Your task to perform on an android device: Open Google Chrome and click the shortcut for Amazon.com Image 0: 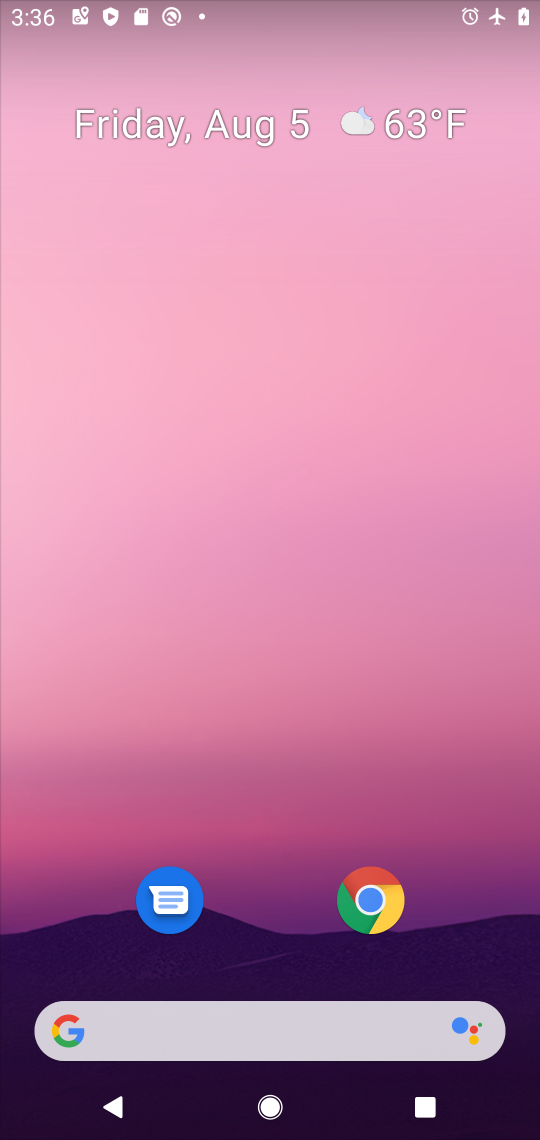
Step 0: click (363, 899)
Your task to perform on an android device: Open Google Chrome and click the shortcut for Amazon.com Image 1: 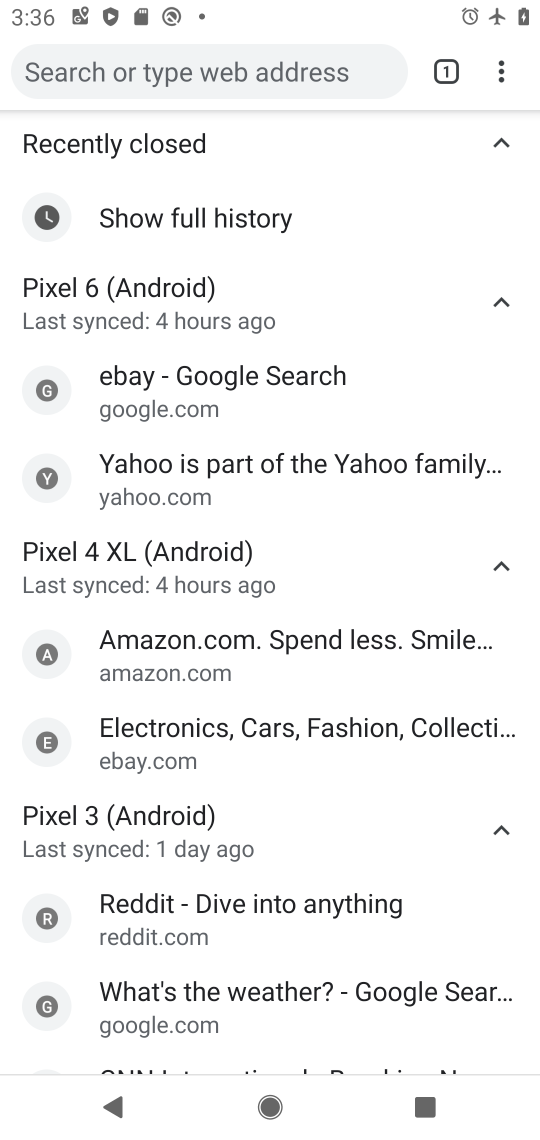
Step 1: click (440, 57)
Your task to perform on an android device: Open Google Chrome and click the shortcut for Amazon.com Image 2: 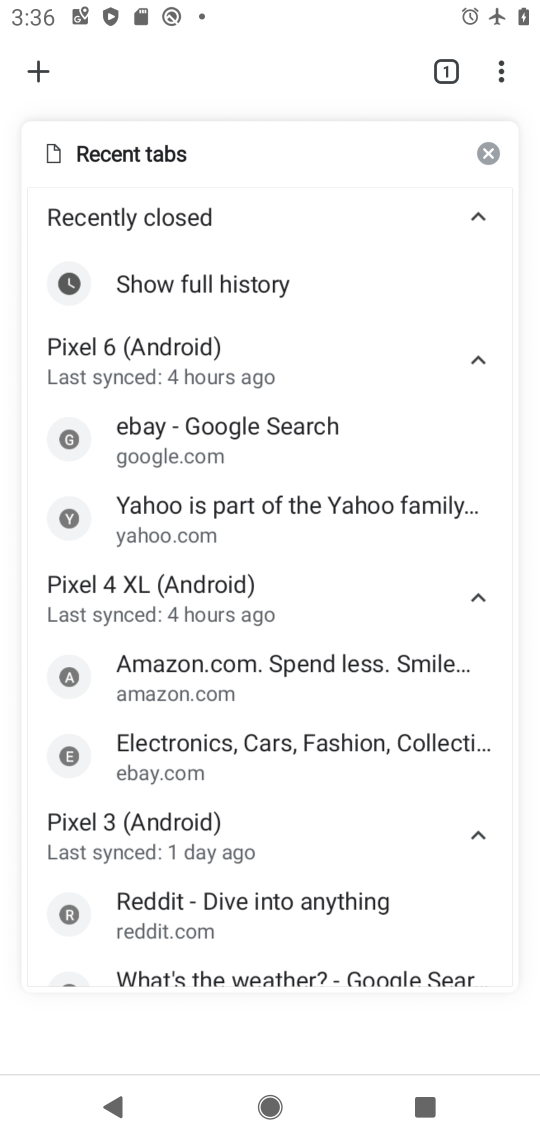
Step 2: click (30, 68)
Your task to perform on an android device: Open Google Chrome and click the shortcut for Amazon.com Image 3: 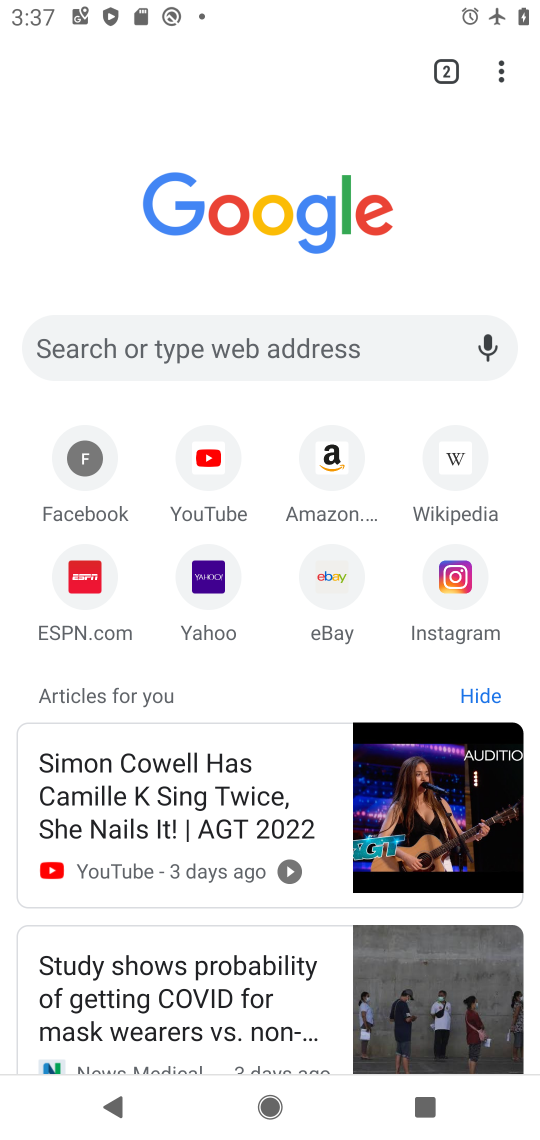
Step 3: click (332, 452)
Your task to perform on an android device: Open Google Chrome and click the shortcut for Amazon.com Image 4: 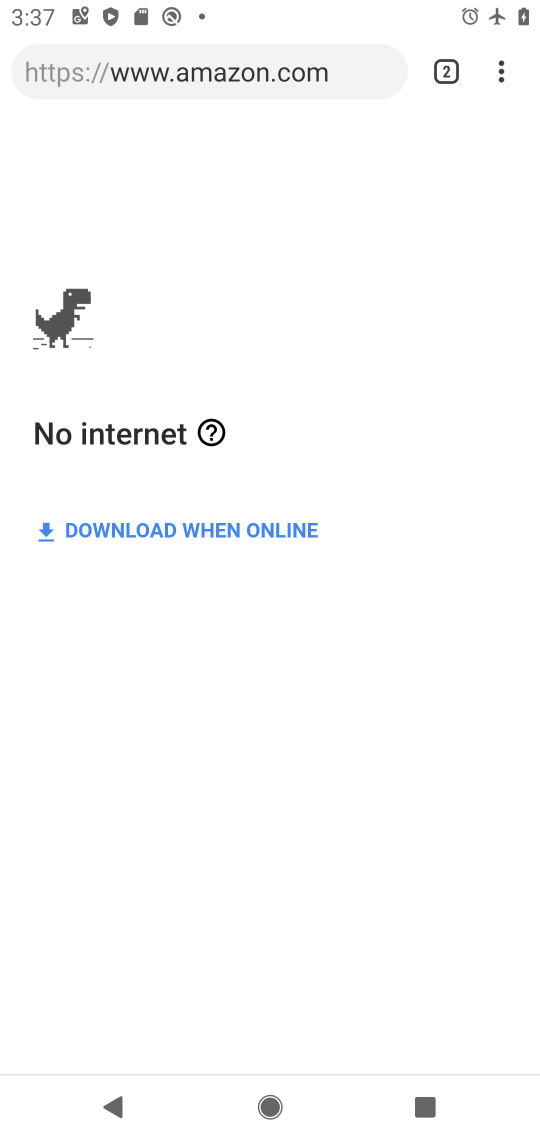
Step 4: drag from (500, 13) to (389, 818)
Your task to perform on an android device: Open Google Chrome and click the shortcut for Amazon.com Image 5: 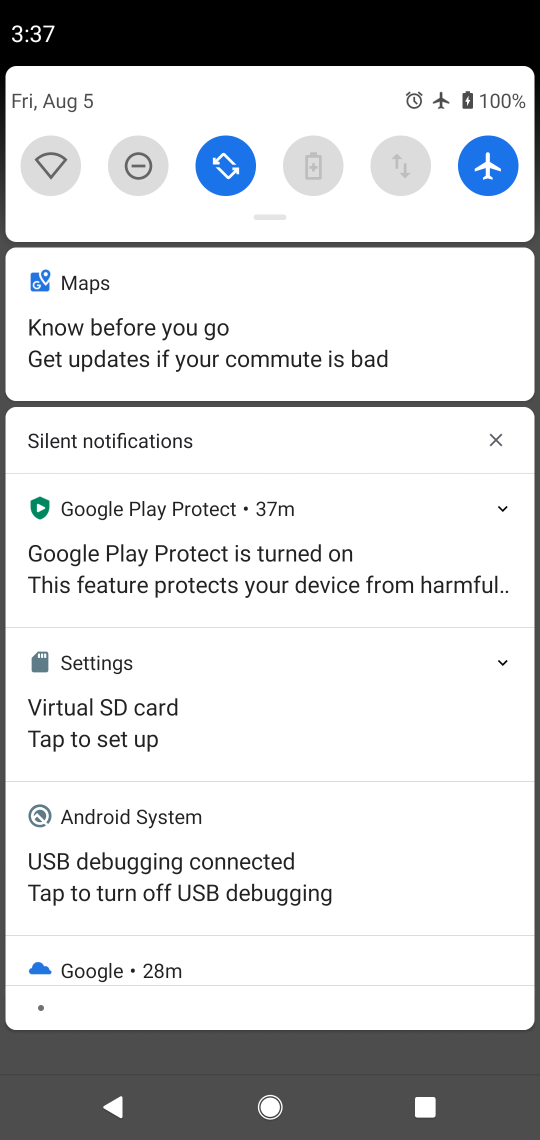
Step 5: click (481, 159)
Your task to perform on an android device: Open Google Chrome and click the shortcut for Amazon.com Image 6: 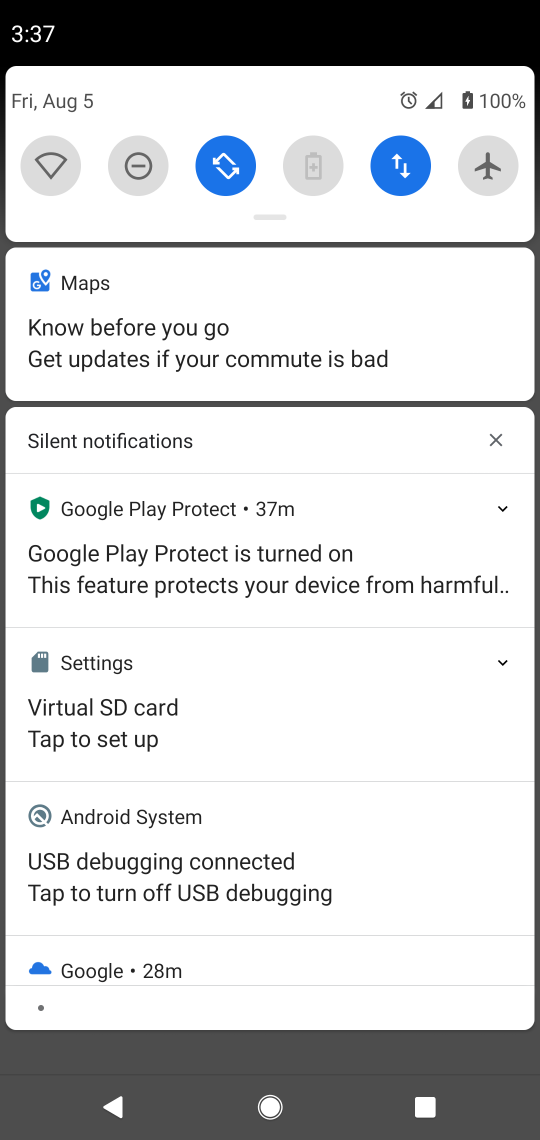
Step 6: task complete